Your task to perform on an android device: Show me the alarms in the clock app Image 0: 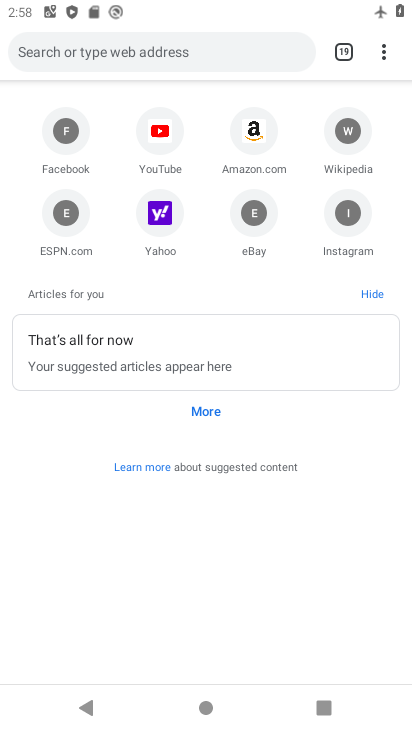
Step 0: press home button
Your task to perform on an android device: Show me the alarms in the clock app Image 1: 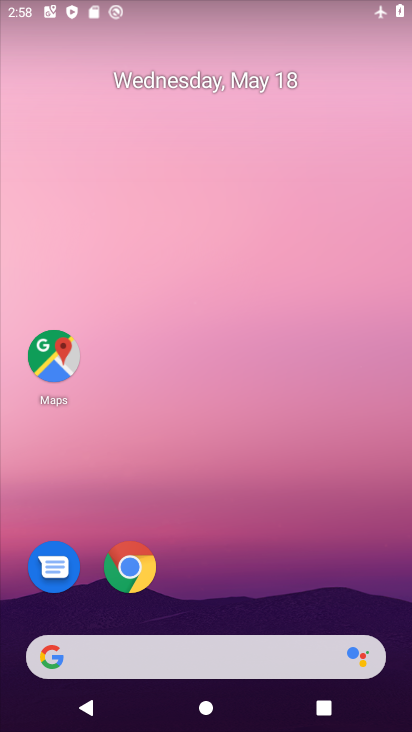
Step 1: drag from (202, 465) to (209, 207)
Your task to perform on an android device: Show me the alarms in the clock app Image 2: 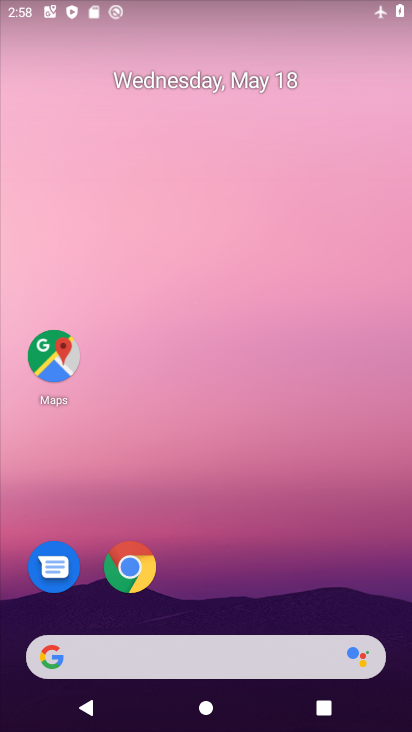
Step 2: drag from (201, 562) to (204, 202)
Your task to perform on an android device: Show me the alarms in the clock app Image 3: 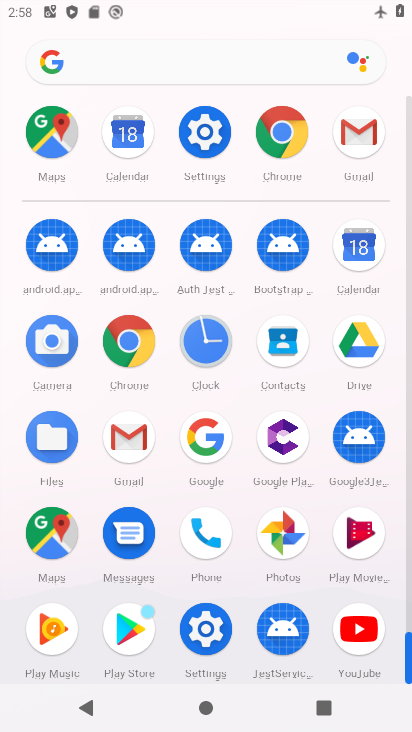
Step 3: click (196, 330)
Your task to perform on an android device: Show me the alarms in the clock app Image 4: 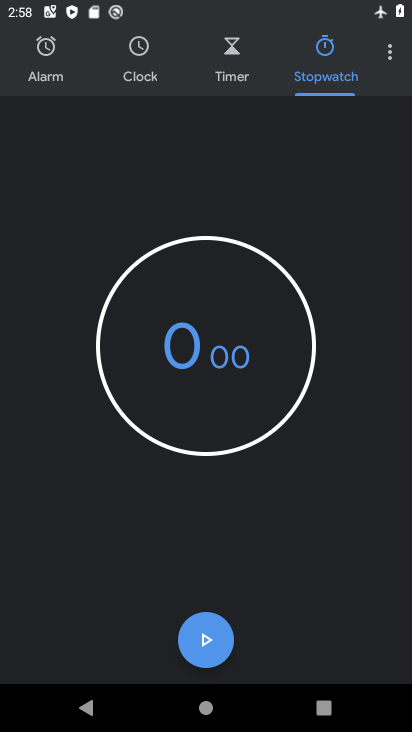
Step 4: click (36, 55)
Your task to perform on an android device: Show me the alarms in the clock app Image 5: 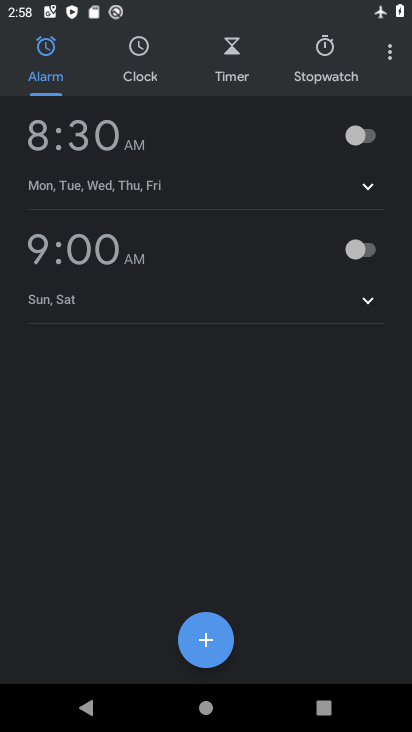
Step 5: task complete